Your task to perform on an android device: Open Yahoo.com Image 0: 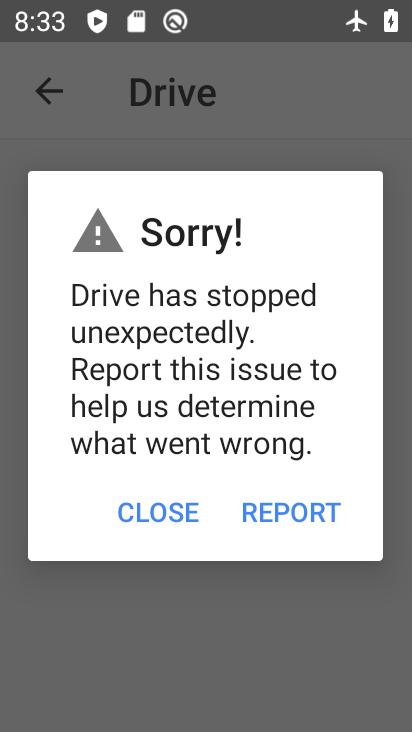
Step 0: press home button
Your task to perform on an android device: Open Yahoo.com Image 1: 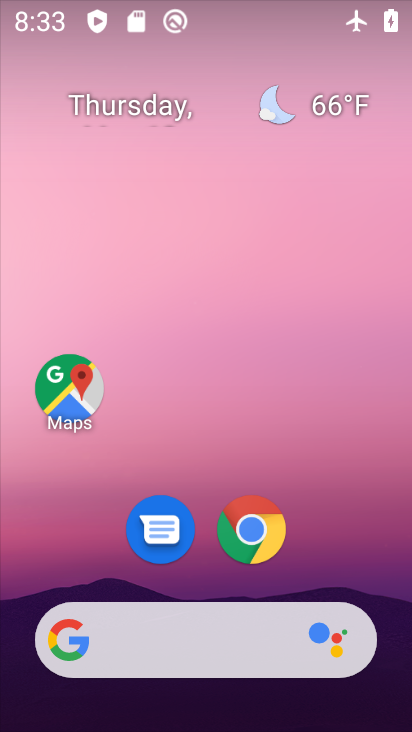
Step 1: click (254, 528)
Your task to perform on an android device: Open Yahoo.com Image 2: 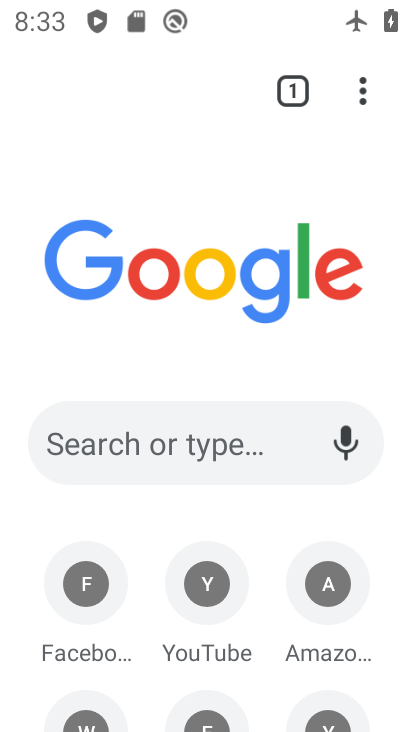
Step 2: click (188, 437)
Your task to perform on an android device: Open Yahoo.com Image 3: 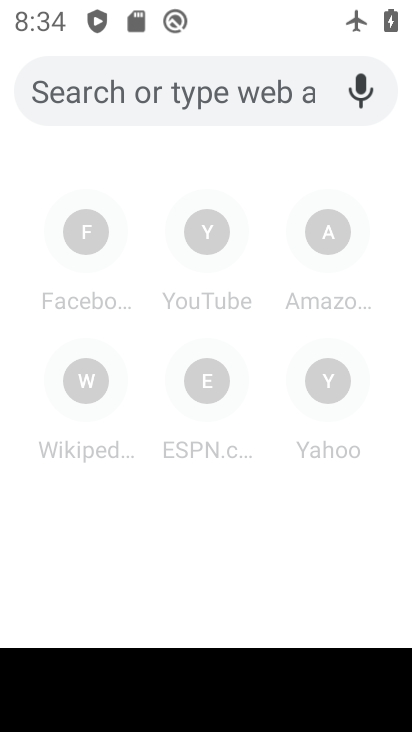
Step 3: type "Yahoo.com"
Your task to perform on an android device: Open Yahoo.com Image 4: 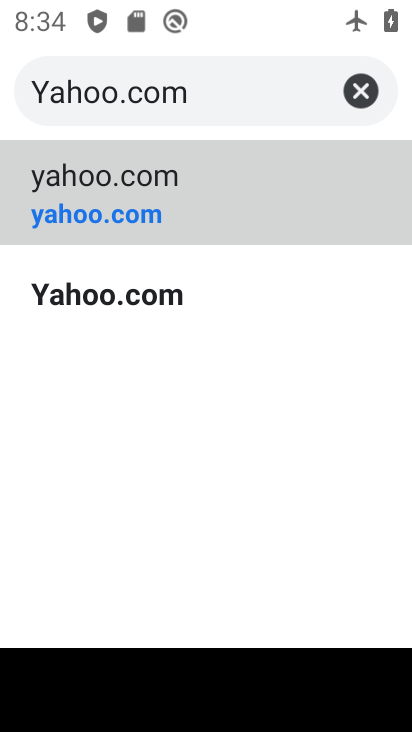
Step 4: click (168, 287)
Your task to perform on an android device: Open Yahoo.com Image 5: 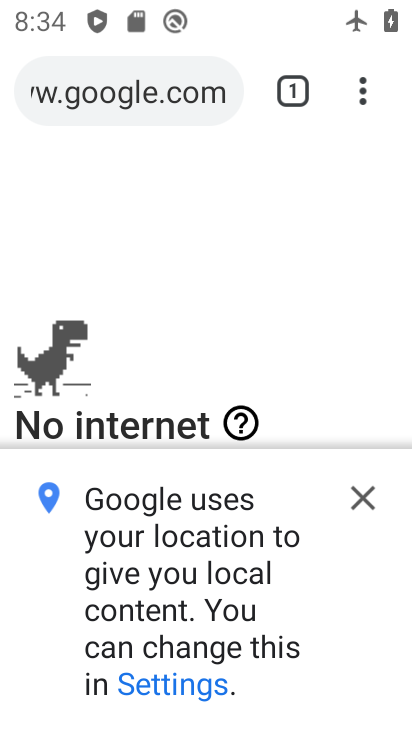
Step 5: task complete